Your task to perform on an android device: Open Google Chrome and click the shortcut for Amazon.com Image 0: 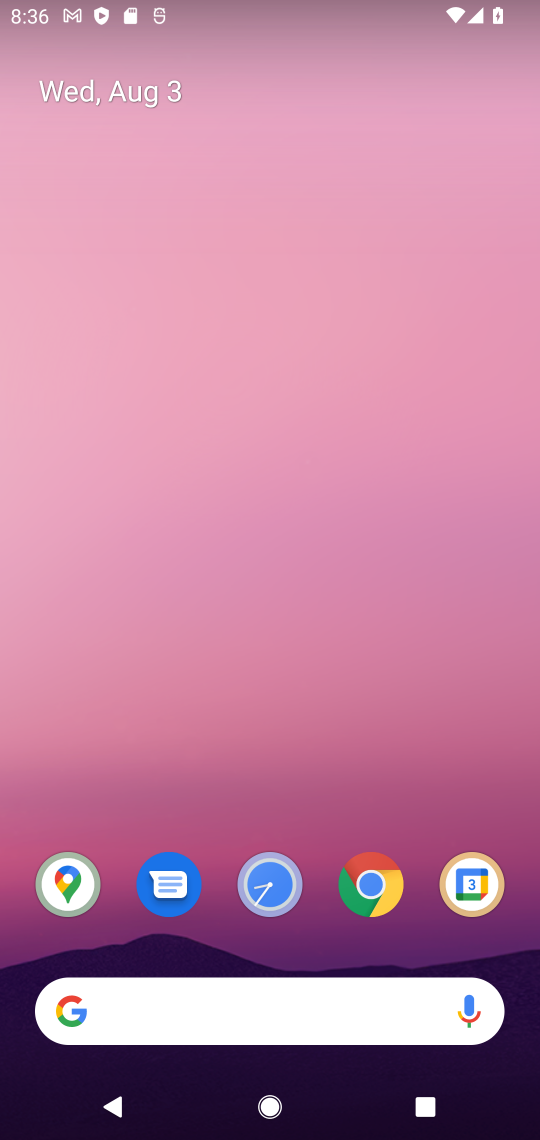
Step 0: click (375, 892)
Your task to perform on an android device: Open Google Chrome and click the shortcut for Amazon.com Image 1: 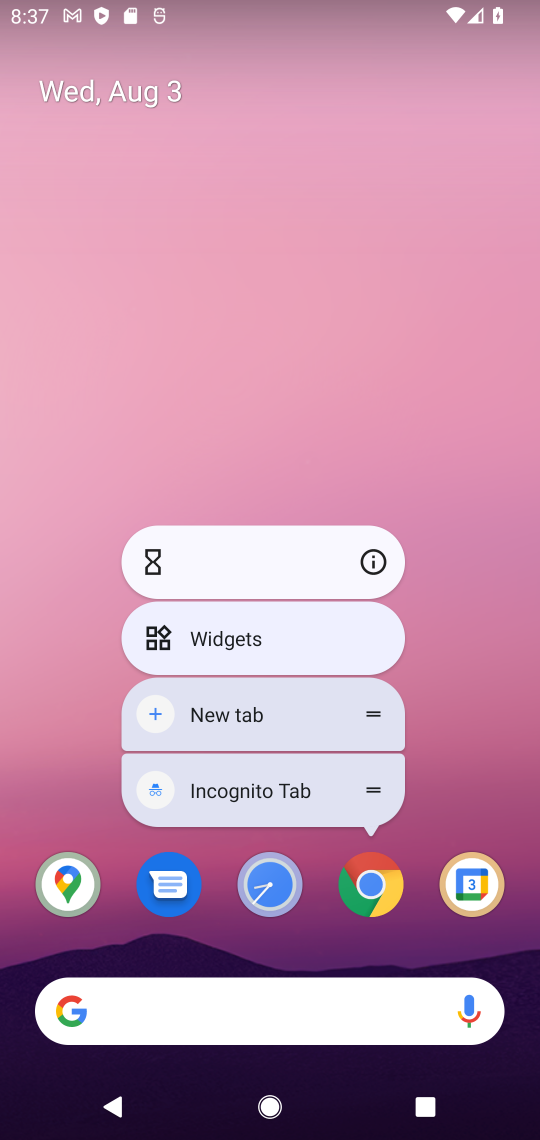
Step 1: click (375, 891)
Your task to perform on an android device: Open Google Chrome and click the shortcut for Amazon.com Image 2: 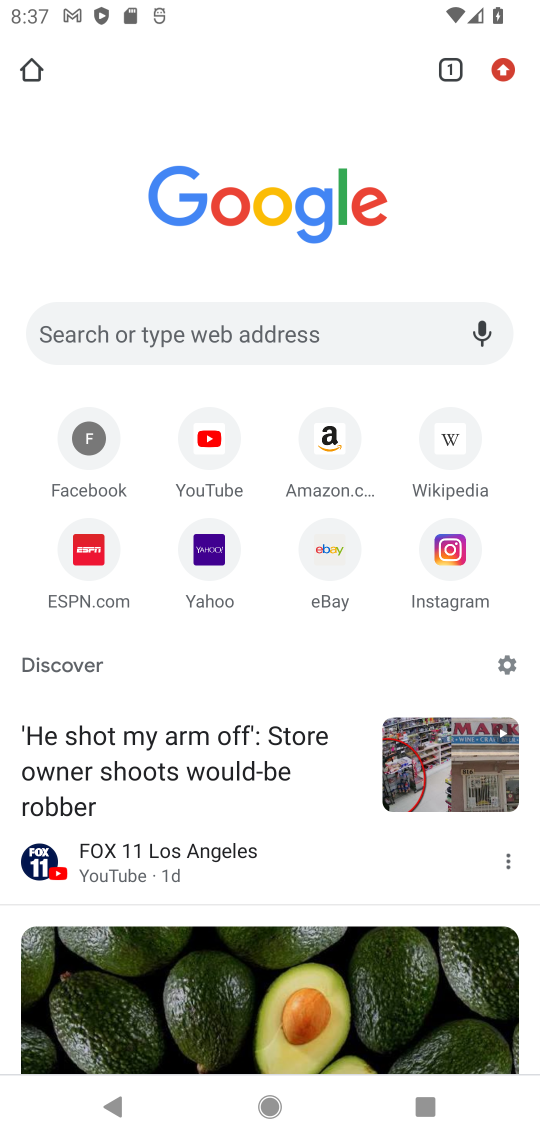
Step 2: click (311, 448)
Your task to perform on an android device: Open Google Chrome and click the shortcut for Amazon.com Image 3: 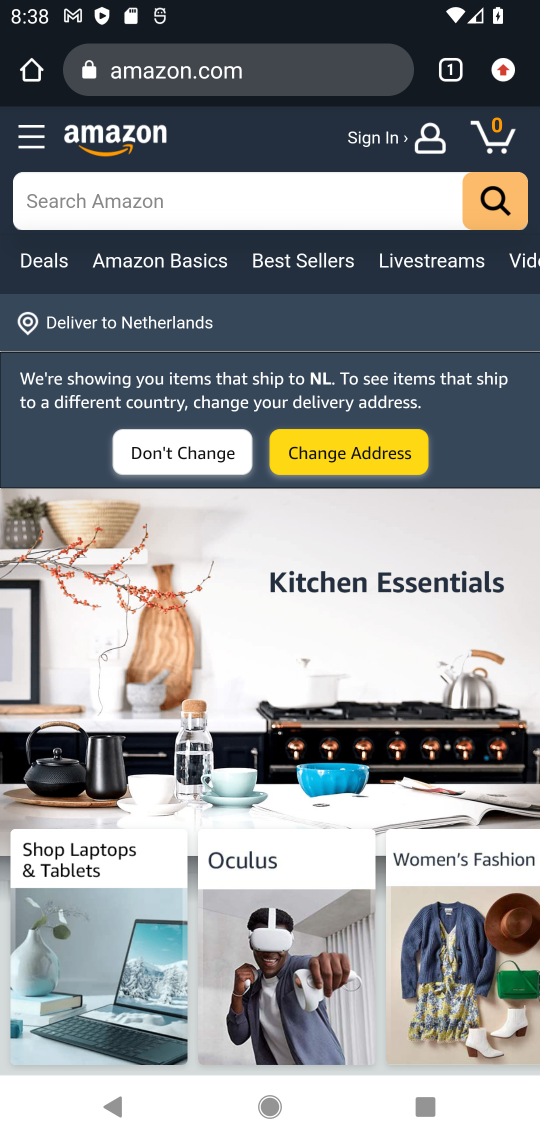
Step 3: task complete